Your task to perform on an android device: add a contact Image 0: 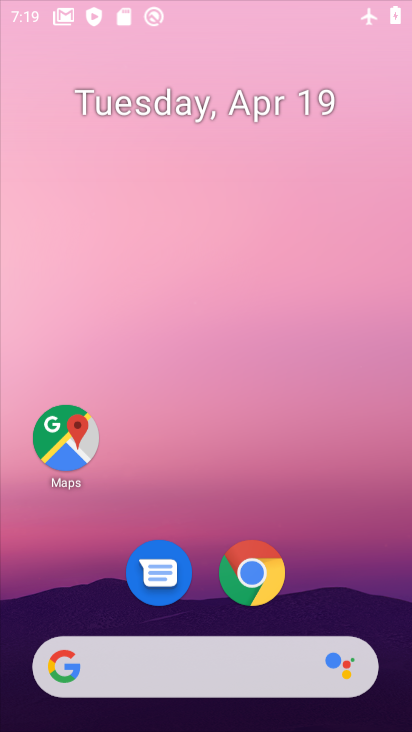
Step 0: click (266, 325)
Your task to perform on an android device: add a contact Image 1: 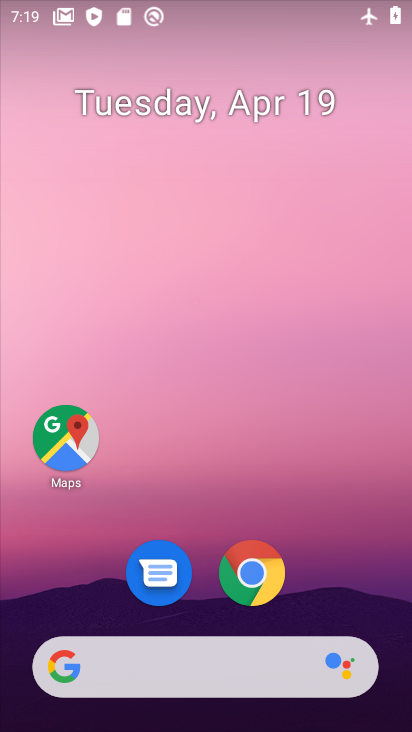
Step 1: drag from (254, 701) to (379, 262)
Your task to perform on an android device: add a contact Image 2: 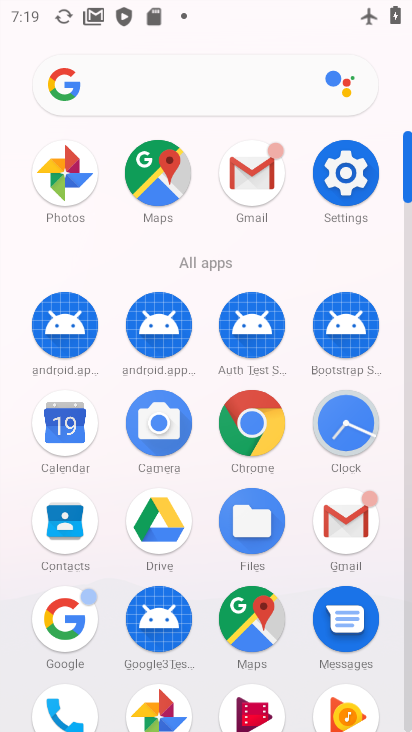
Step 2: click (66, 706)
Your task to perform on an android device: add a contact Image 3: 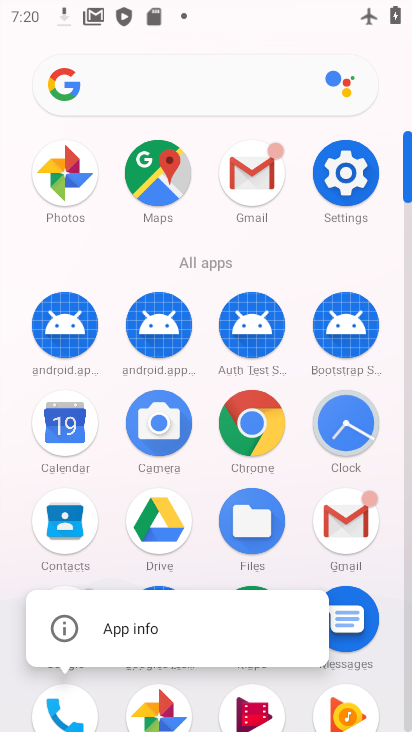
Step 3: click (74, 703)
Your task to perform on an android device: add a contact Image 4: 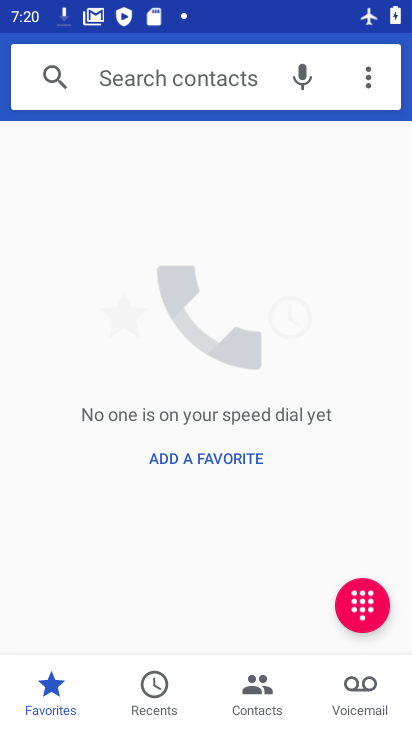
Step 4: click (381, 73)
Your task to perform on an android device: add a contact Image 5: 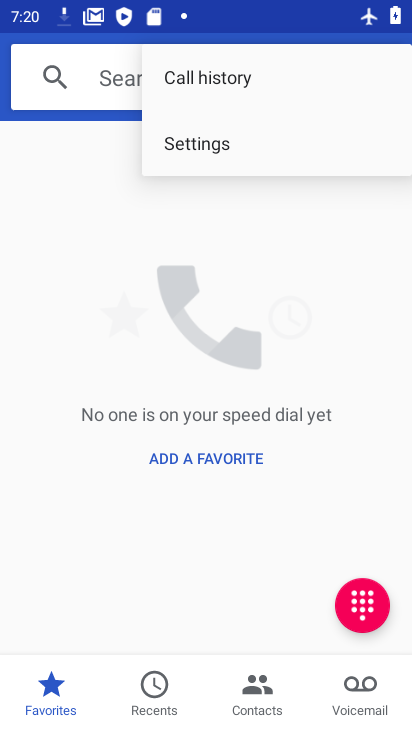
Step 5: click (203, 362)
Your task to perform on an android device: add a contact Image 6: 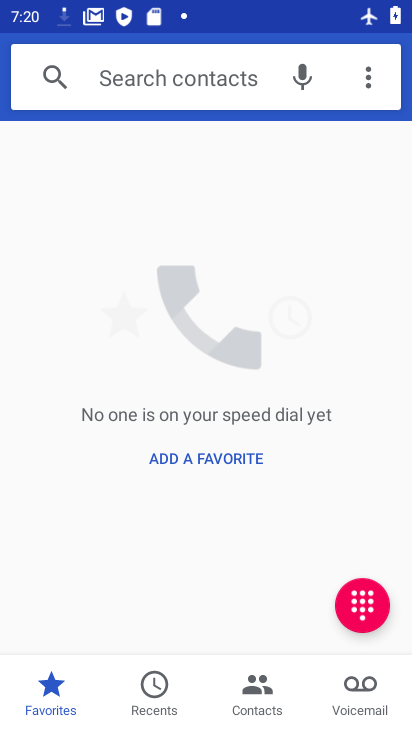
Step 6: click (258, 689)
Your task to perform on an android device: add a contact Image 7: 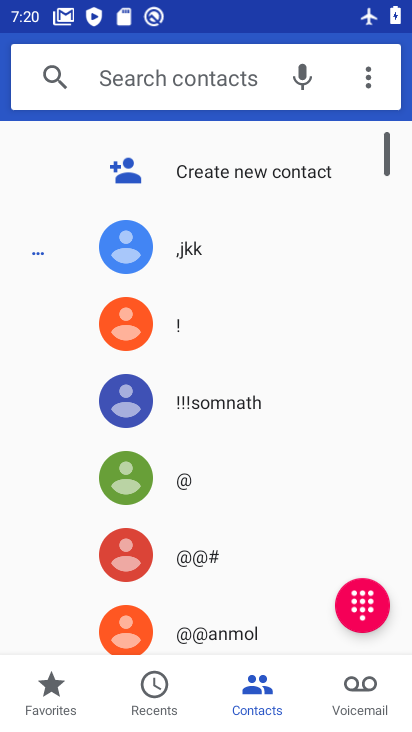
Step 7: click (204, 166)
Your task to perform on an android device: add a contact Image 8: 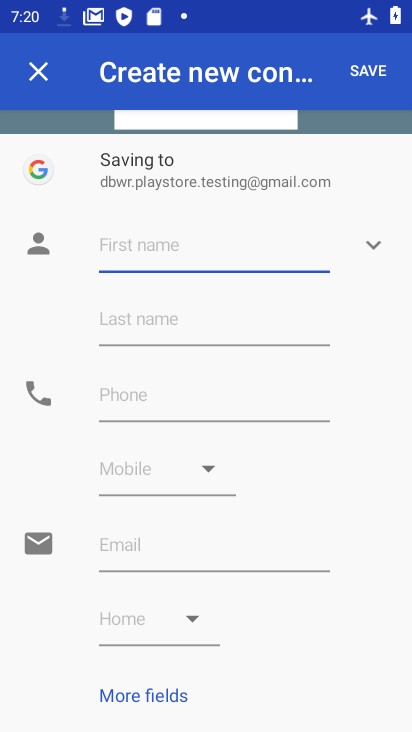
Step 8: click (143, 246)
Your task to perform on an android device: add a contact Image 9: 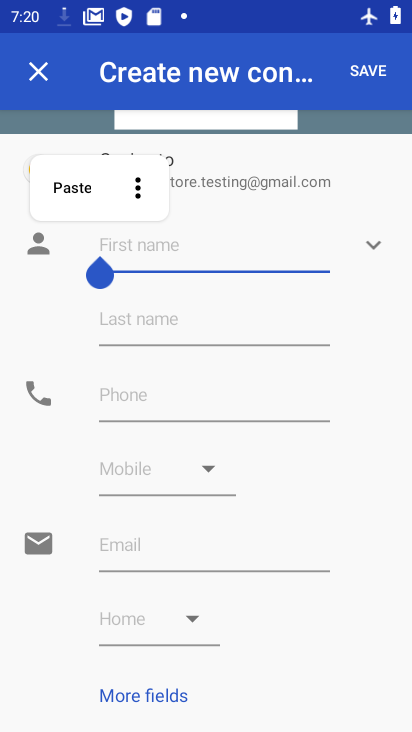
Step 9: drag from (389, 719) to (367, 499)
Your task to perform on an android device: add a contact Image 10: 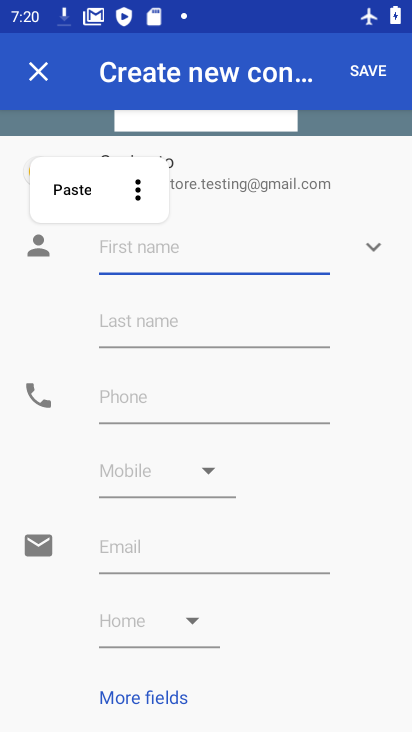
Step 10: click (403, 715)
Your task to perform on an android device: add a contact Image 11: 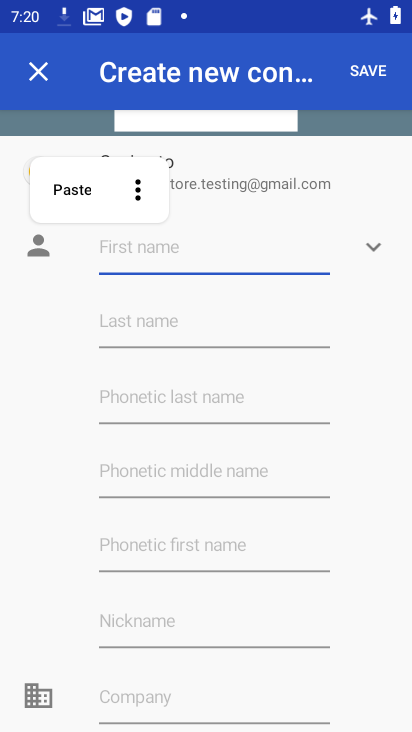
Step 11: drag from (363, 680) to (351, 518)
Your task to perform on an android device: add a contact Image 12: 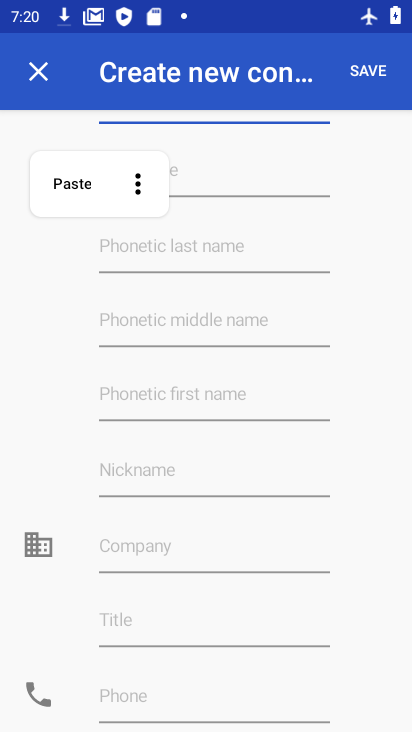
Step 12: click (232, 605)
Your task to perform on an android device: add a contact Image 13: 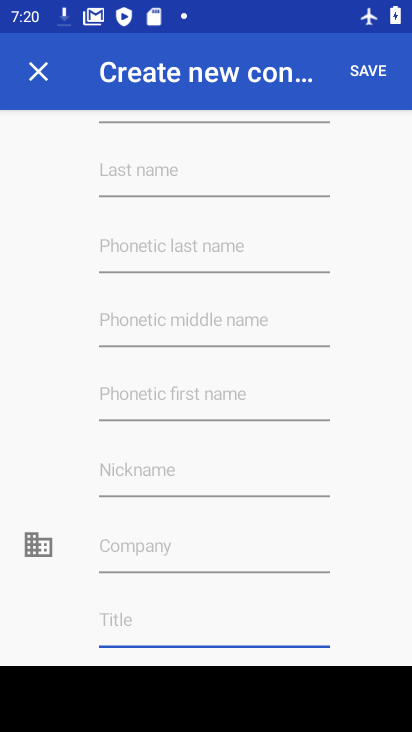
Step 13: click (391, 715)
Your task to perform on an android device: add a contact Image 14: 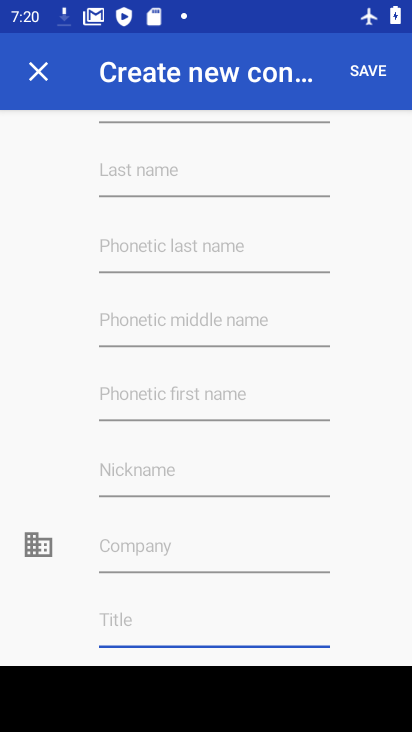
Step 14: drag from (392, 711) to (400, 633)
Your task to perform on an android device: add a contact Image 15: 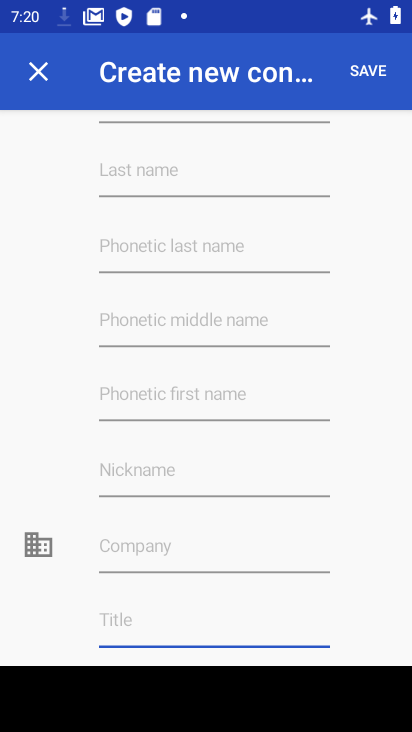
Step 15: drag from (391, 704) to (405, 581)
Your task to perform on an android device: add a contact Image 16: 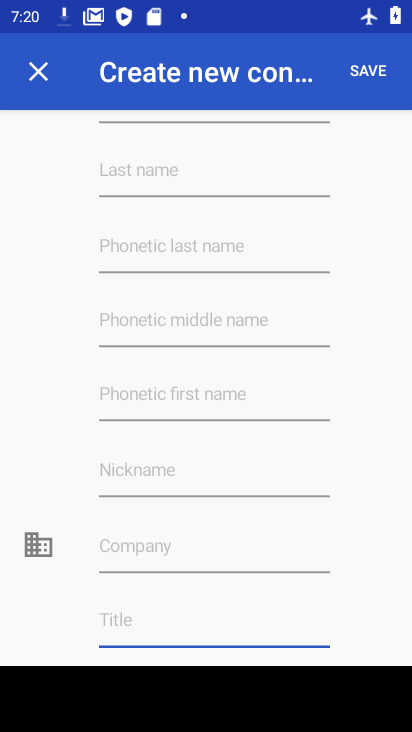
Step 16: click (389, 698)
Your task to perform on an android device: add a contact Image 17: 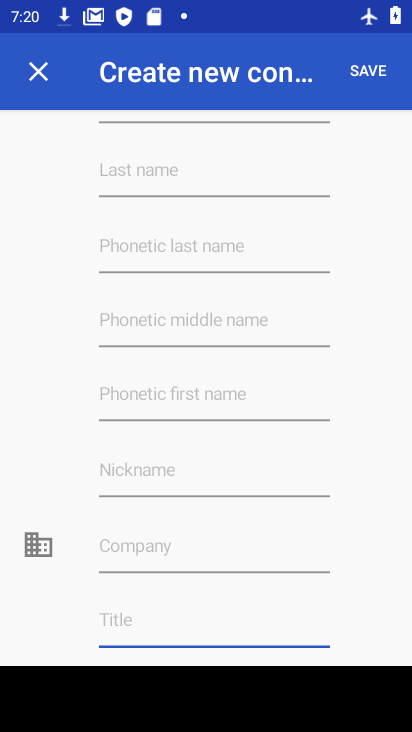
Step 17: click (347, 681)
Your task to perform on an android device: add a contact Image 18: 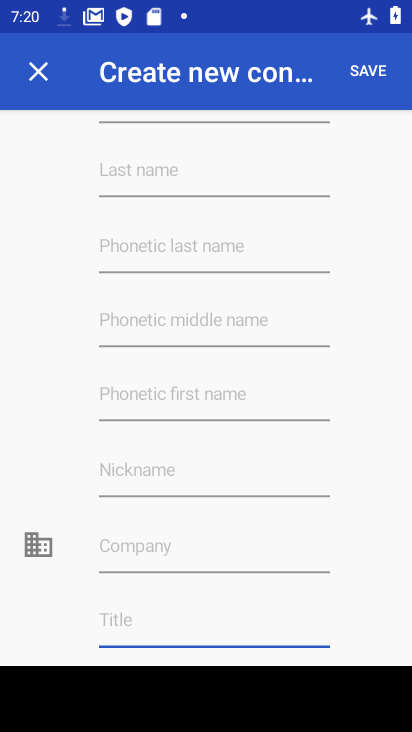
Step 18: click (138, 160)
Your task to perform on an android device: add a contact Image 19: 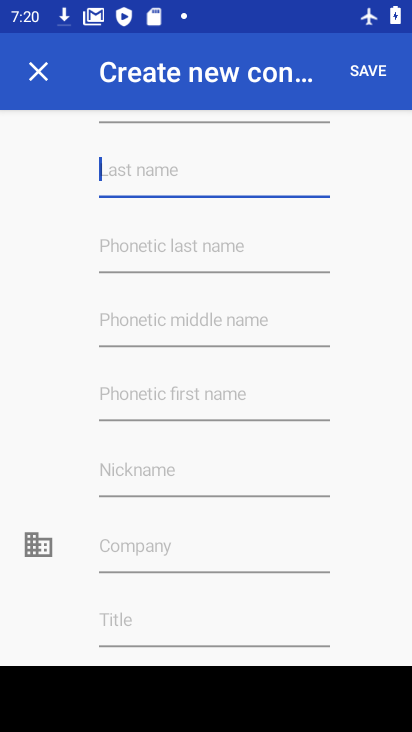
Step 19: drag from (398, 713) to (401, 512)
Your task to perform on an android device: add a contact Image 20: 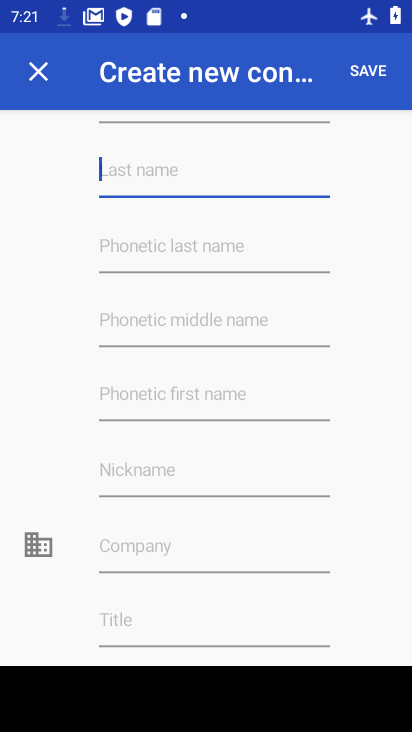
Step 20: drag from (384, 679) to (385, 495)
Your task to perform on an android device: add a contact Image 21: 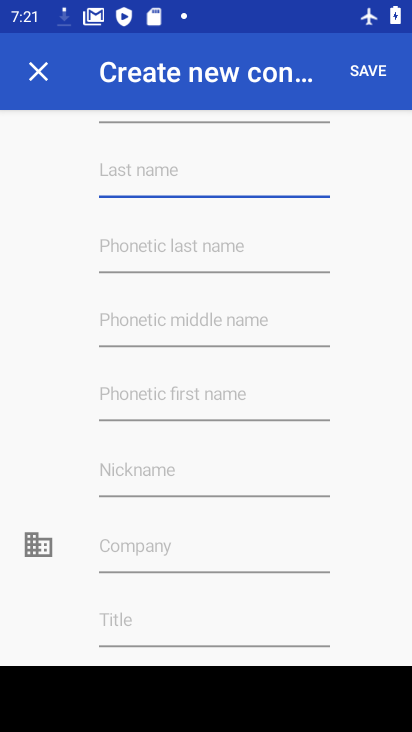
Step 21: click (122, 181)
Your task to perform on an android device: add a contact Image 22: 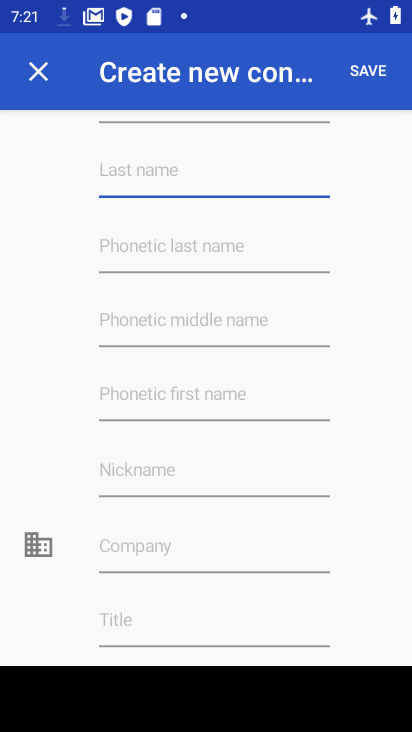
Step 22: click (392, 706)
Your task to perform on an android device: add a contact Image 23: 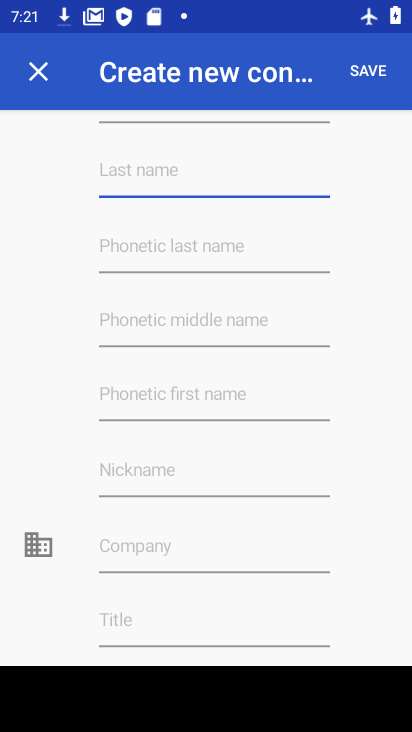
Step 23: drag from (388, 705) to (370, 545)
Your task to perform on an android device: add a contact Image 24: 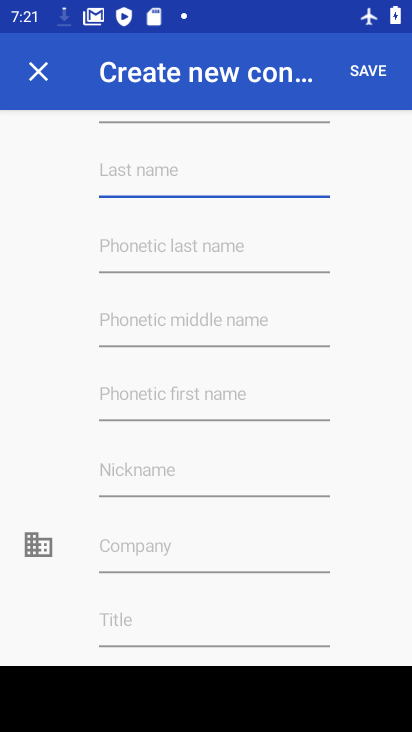
Step 24: click (385, 703)
Your task to perform on an android device: add a contact Image 25: 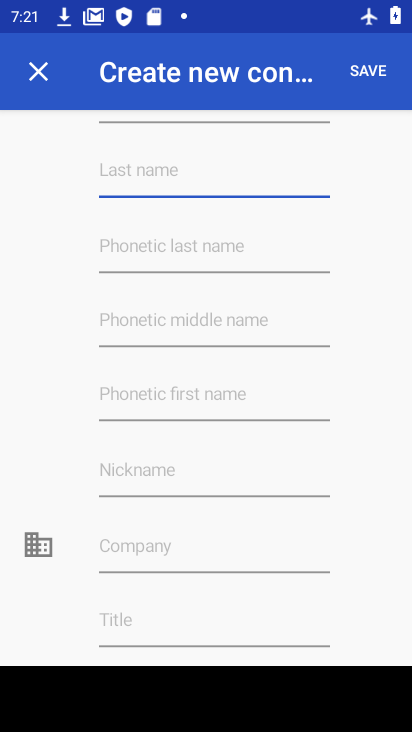
Step 25: drag from (390, 678) to (409, 568)
Your task to perform on an android device: add a contact Image 26: 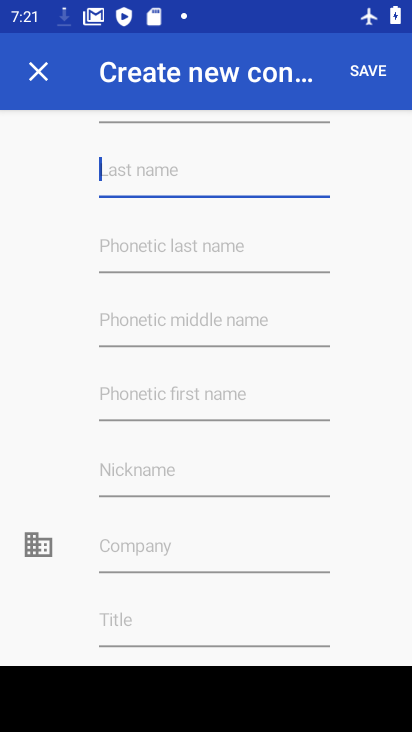
Step 26: drag from (358, 701) to (377, 483)
Your task to perform on an android device: add a contact Image 27: 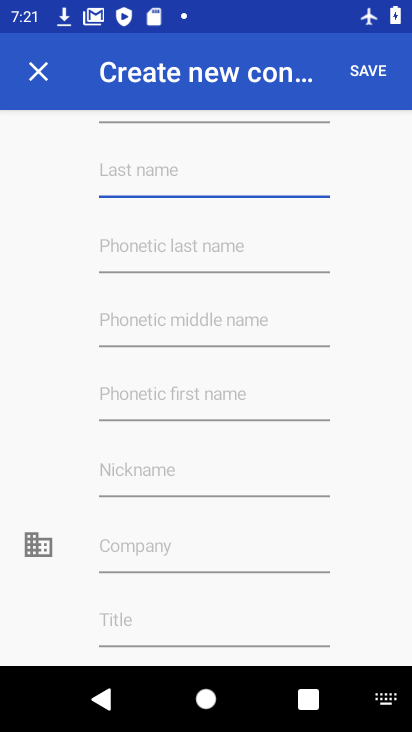
Step 27: click (389, 698)
Your task to perform on an android device: add a contact Image 28: 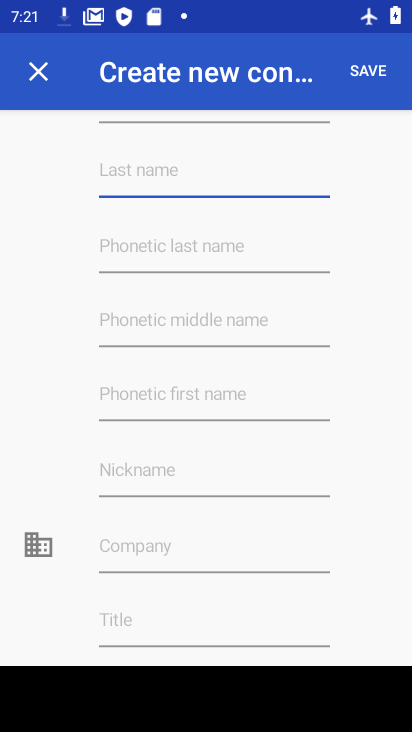
Step 28: drag from (351, 703) to (330, 440)
Your task to perform on an android device: add a contact Image 29: 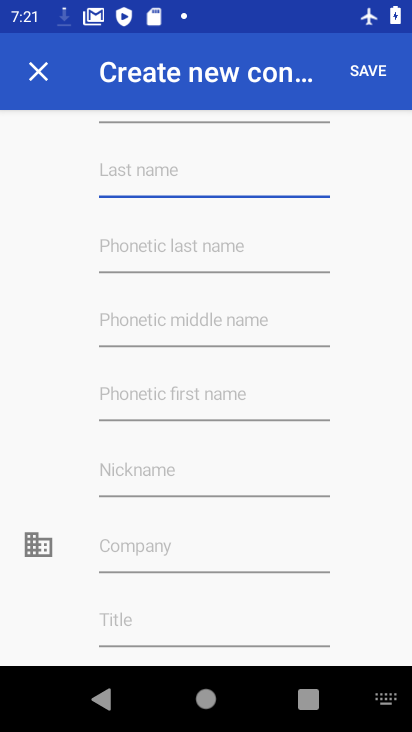
Step 29: click (393, 687)
Your task to perform on an android device: add a contact Image 30: 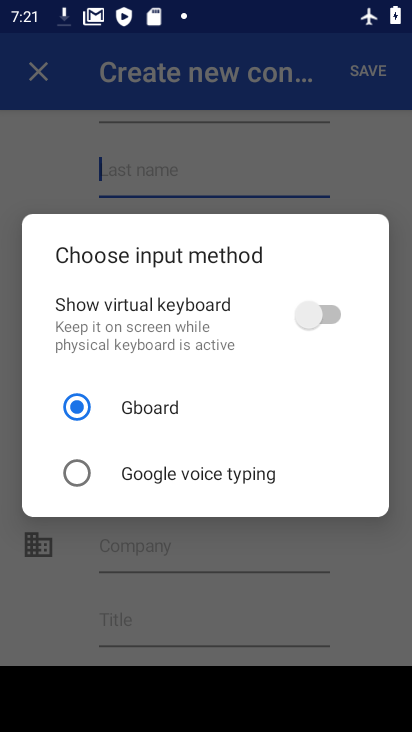
Step 30: click (322, 321)
Your task to perform on an android device: add a contact Image 31: 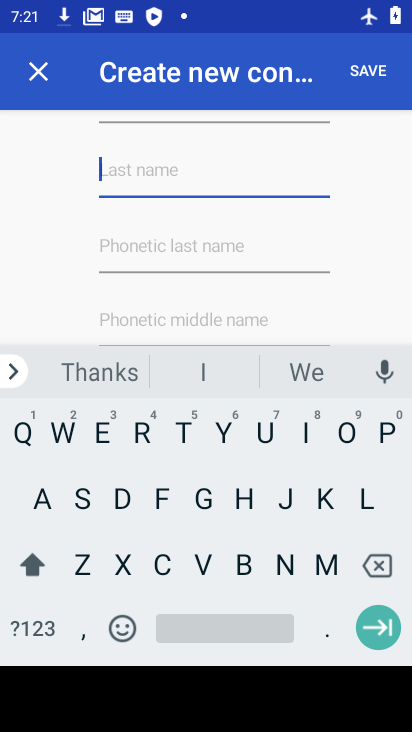
Step 31: click (159, 488)
Your task to perform on an android device: add a contact Image 32: 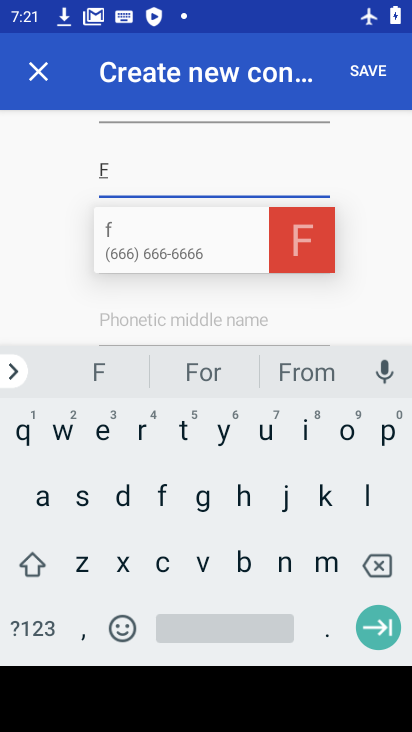
Step 32: click (223, 560)
Your task to perform on an android device: add a contact Image 33: 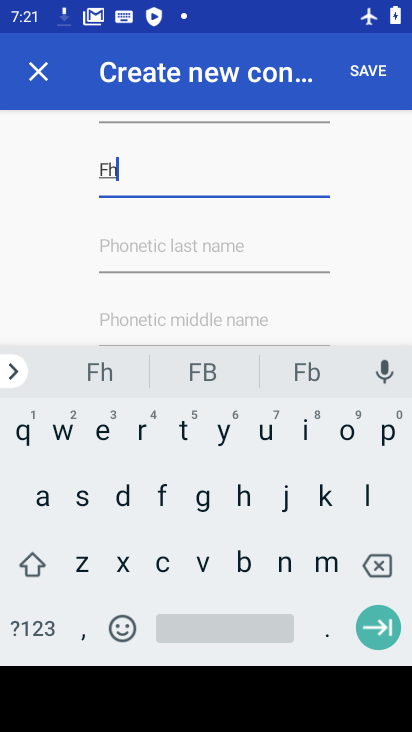
Step 33: click (251, 567)
Your task to perform on an android device: add a contact Image 34: 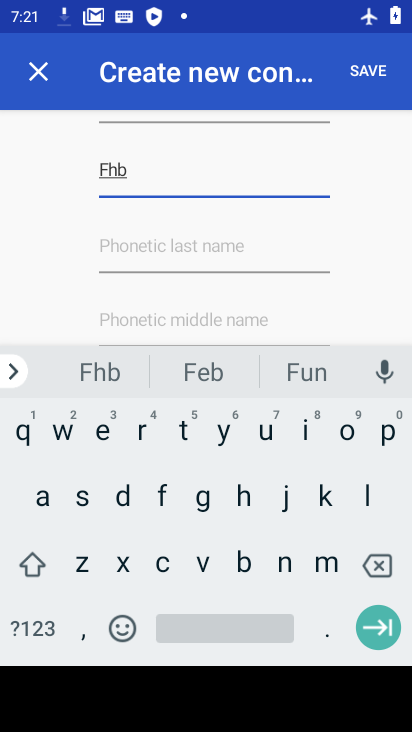
Step 34: drag from (203, 190) to (145, 329)
Your task to perform on an android device: add a contact Image 35: 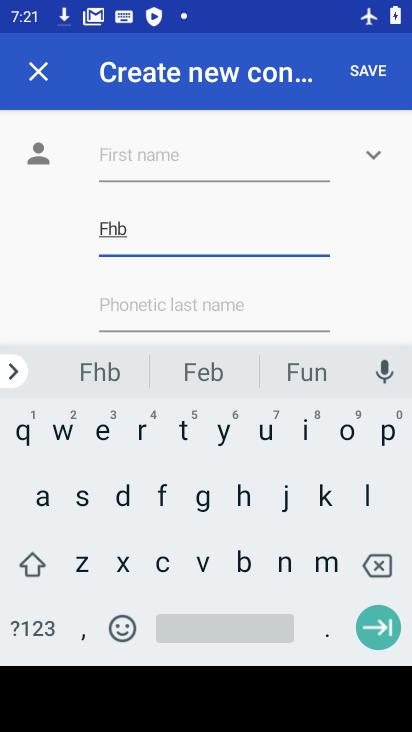
Step 35: click (135, 171)
Your task to perform on an android device: add a contact Image 36: 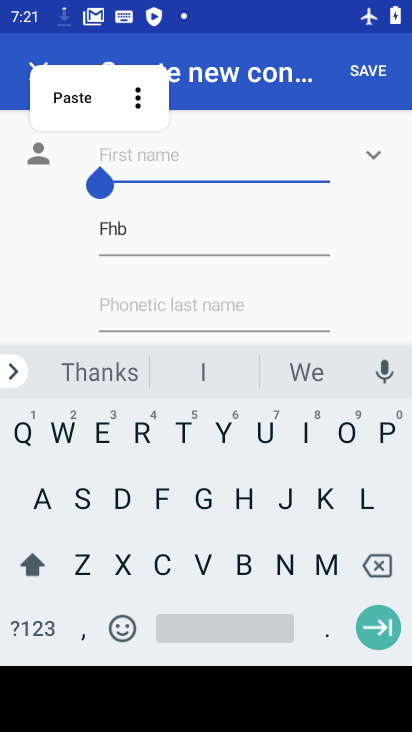
Step 36: click (215, 434)
Your task to perform on an android device: add a contact Image 37: 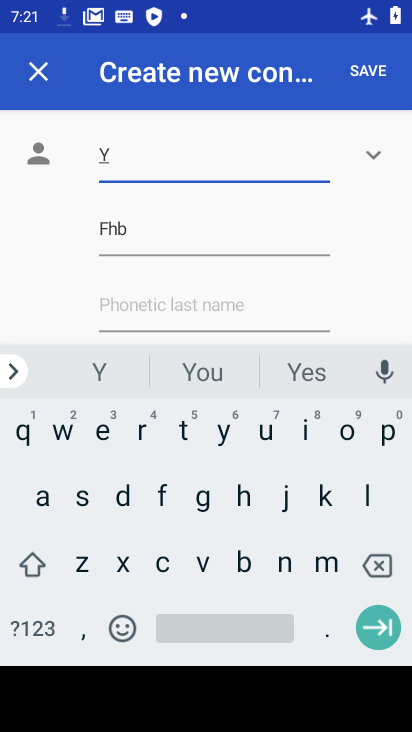
Step 37: click (189, 497)
Your task to perform on an android device: add a contact Image 38: 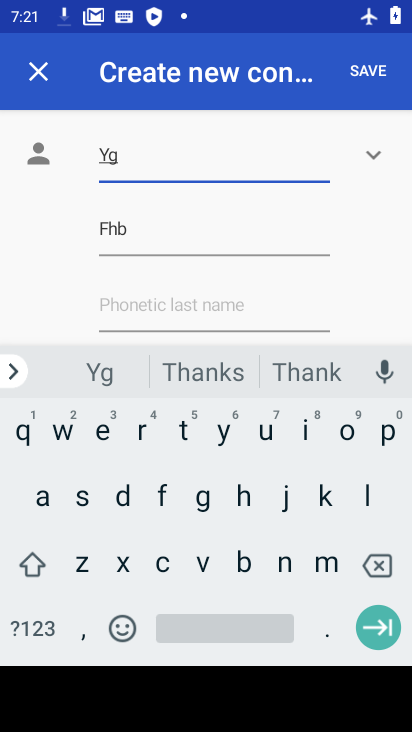
Step 38: click (156, 303)
Your task to perform on an android device: add a contact Image 39: 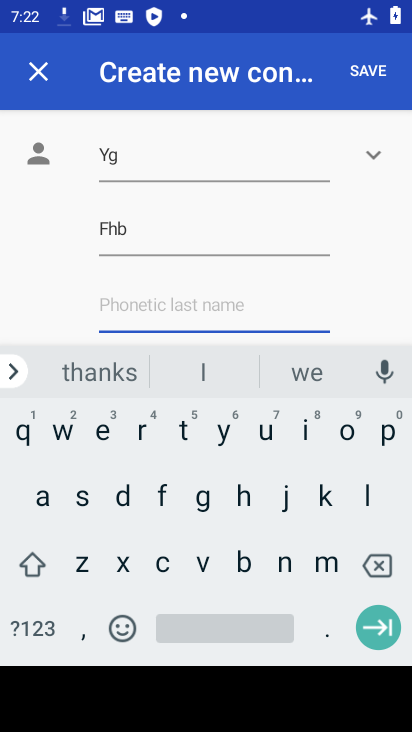
Step 39: click (36, 631)
Your task to perform on an android device: add a contact Image 40: 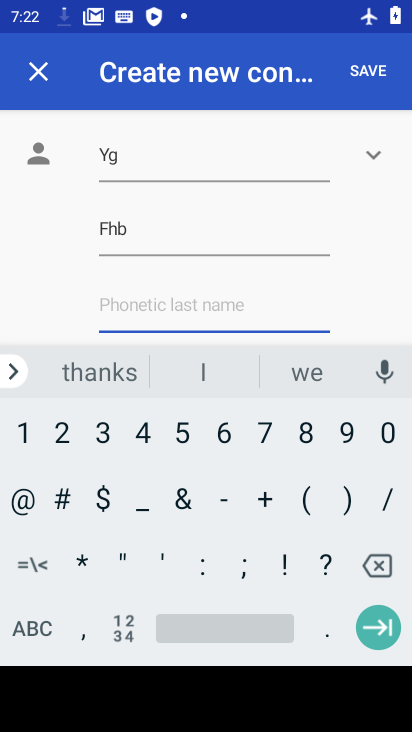
Step 40: drag from (221, 261) to (274, 111)
Your task to perform on an android device: add a contact Image 41: 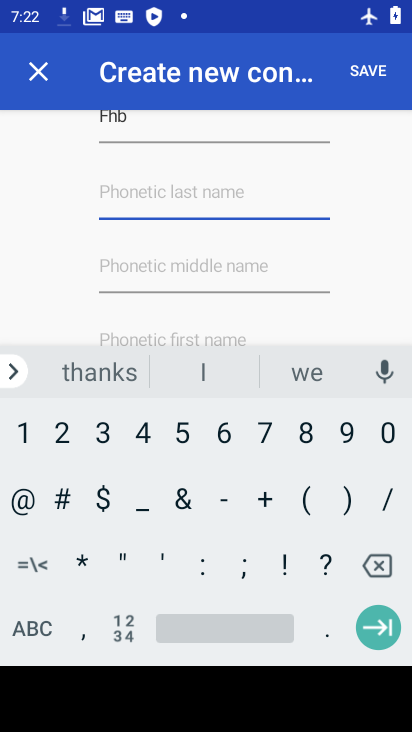
Step 41: drag from (164, 280) to (194, 150)
Your task to perform on an android device: add a contact Image 42: 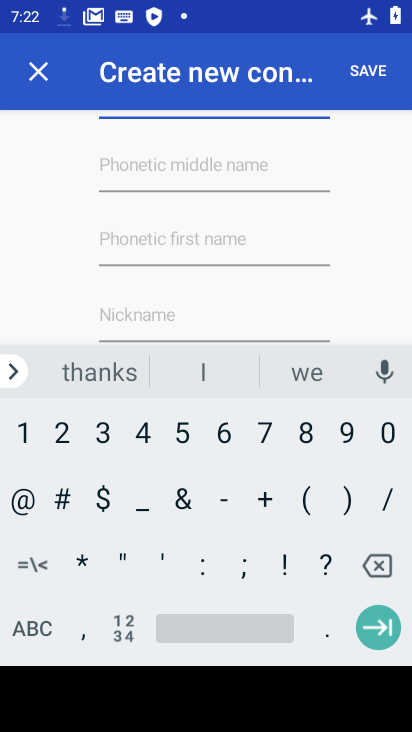
Step 42: drag from (183, 244) to (124, 355)
Your task to perform on an android device: add a contact Image 43: 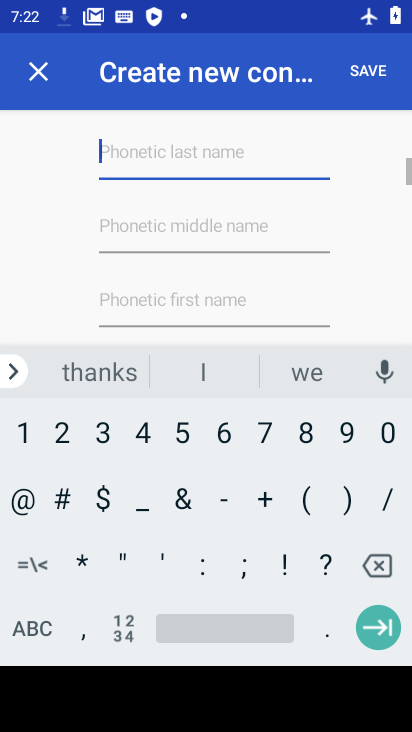
Step 43: drag from (164, 183) to (120, 311)
Your task to perform on an android device: add a contact Image 44: 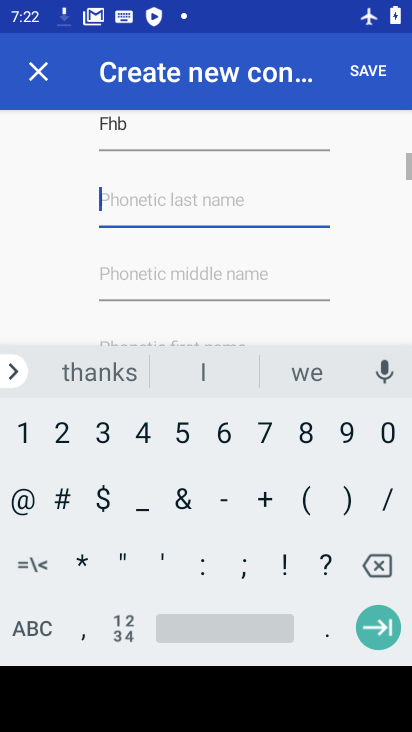
Step 44: drag from (168, 145) to (115, 292)
Your task to perform on an android device: add a contact Image 45: 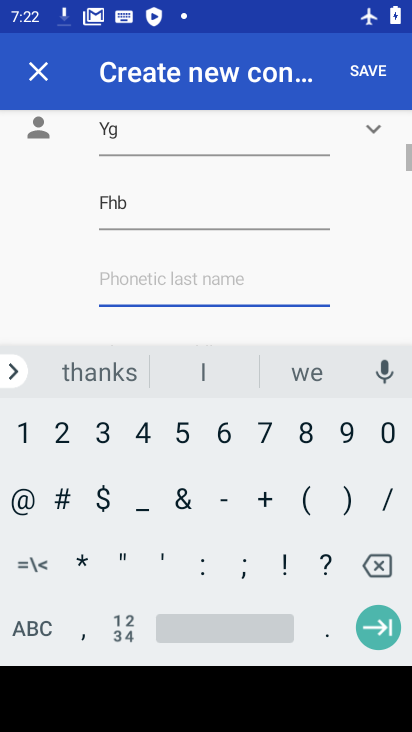
Step 45: drag from (192, 160) to (171, 235)
Your task to perform on an android device: add a contact Image 46: 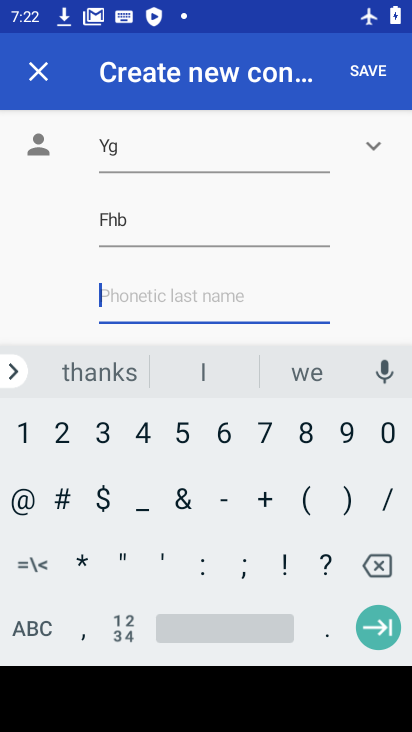
Step 46: click (365, 148)
Your task to perform on an android device: add a contact Image 47: 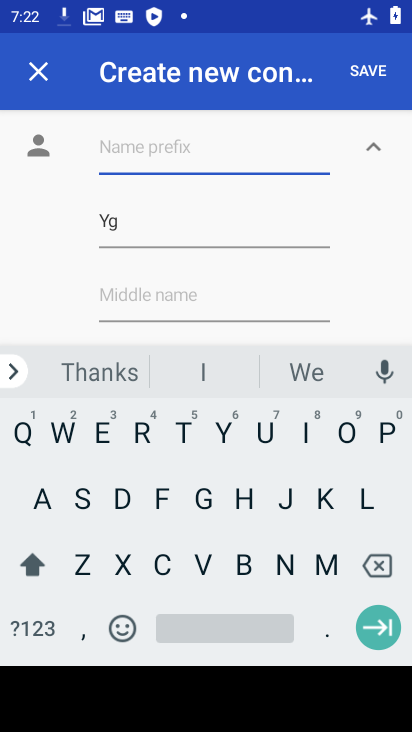
Step 47: click (202, 424)
Your task to perform on an android device: add a contact Image 48: 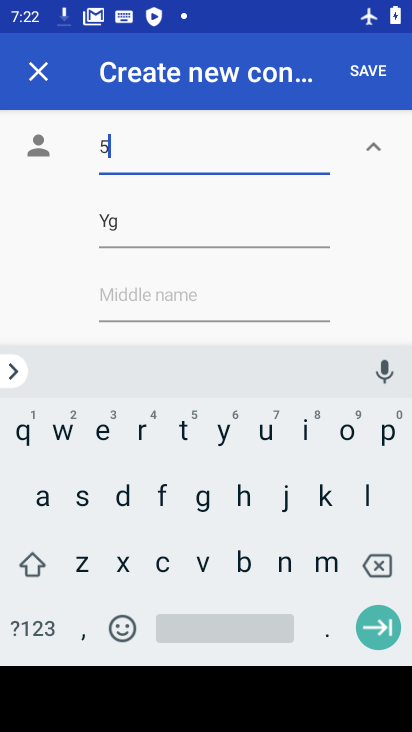
Step 48: click (370, 55)
Your task to perform on an android device: add a contact Image 49: 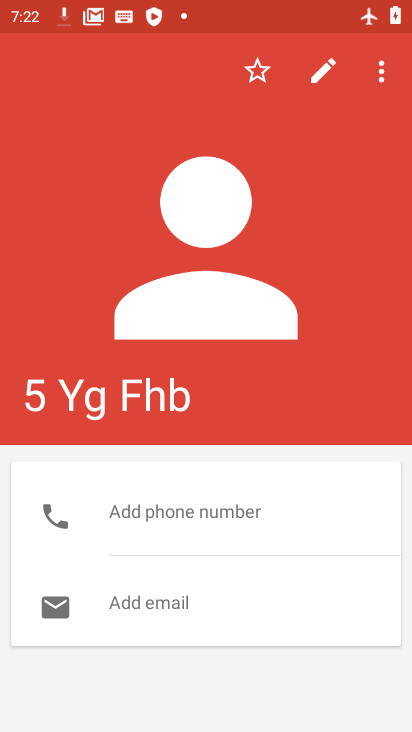
Step 49: task complete